Your task to perform on an android device: Clear the cart on walmart.com. Add dell xps to the cart on walmart.com Image 0: 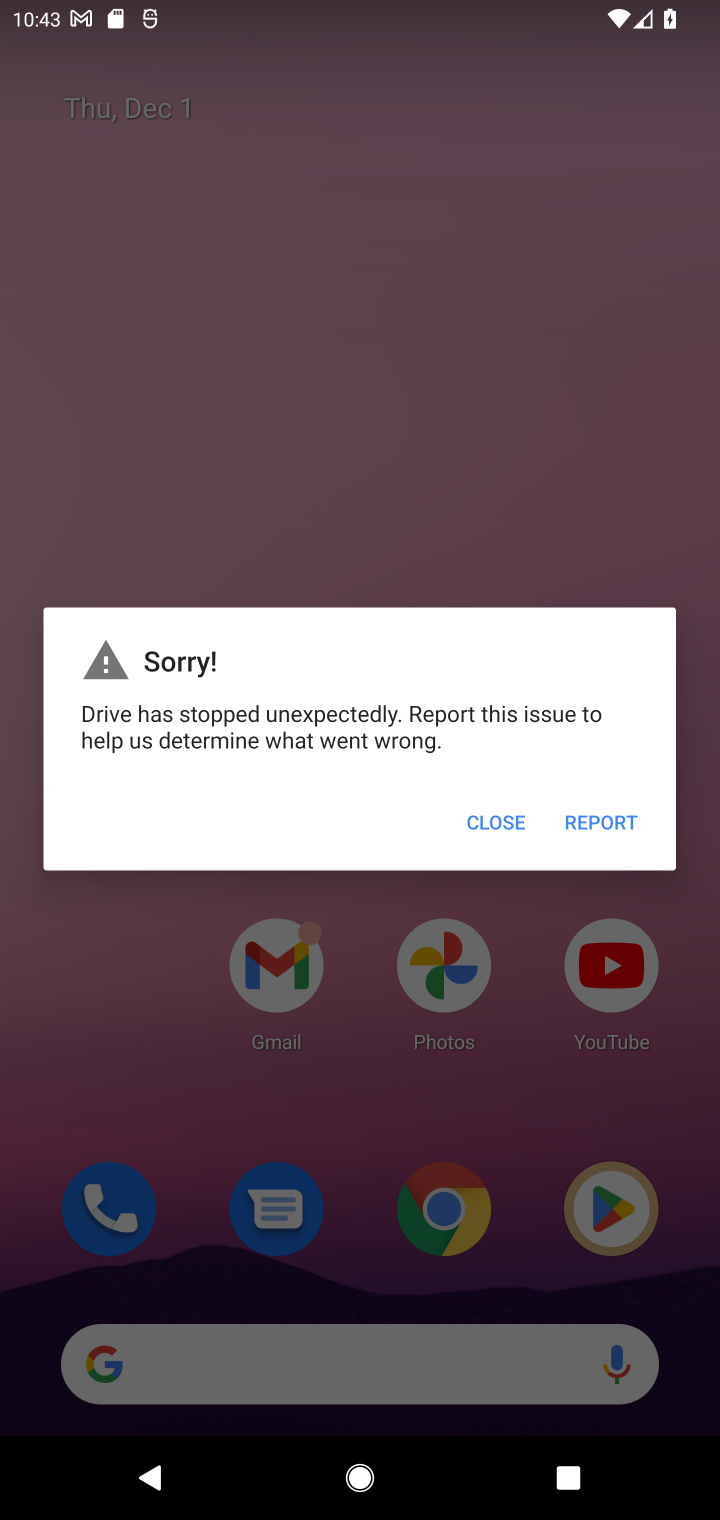
Step 0: click (490, 816)
Your task to perform on an android device: Clear the cart on walmart.com. Add dell xps to the cart on walmart.com Image 1: 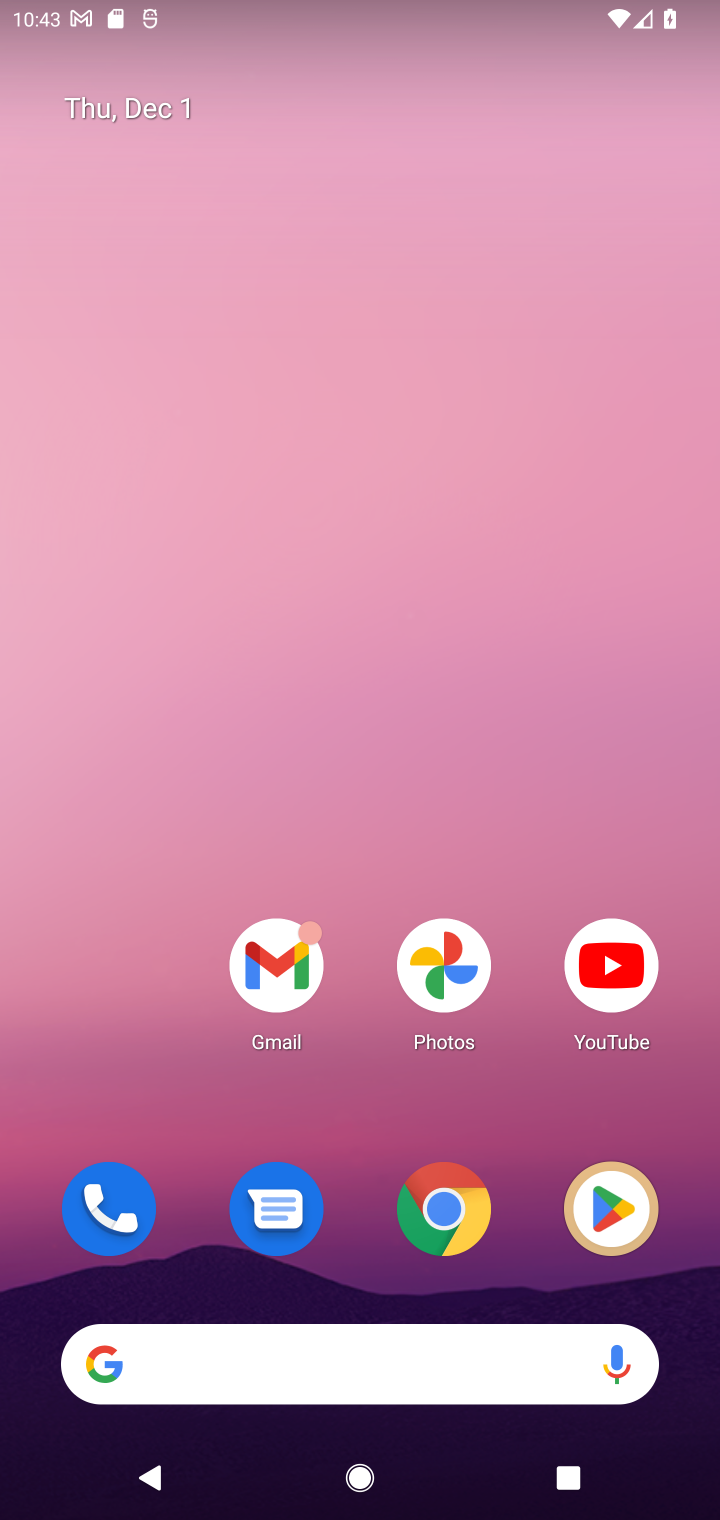
Step 1: click (447, 1205)
Your task to perform on an android device: Clear the cart on walmart.com. Add dell xps to the cart on walmart.com Image 2: 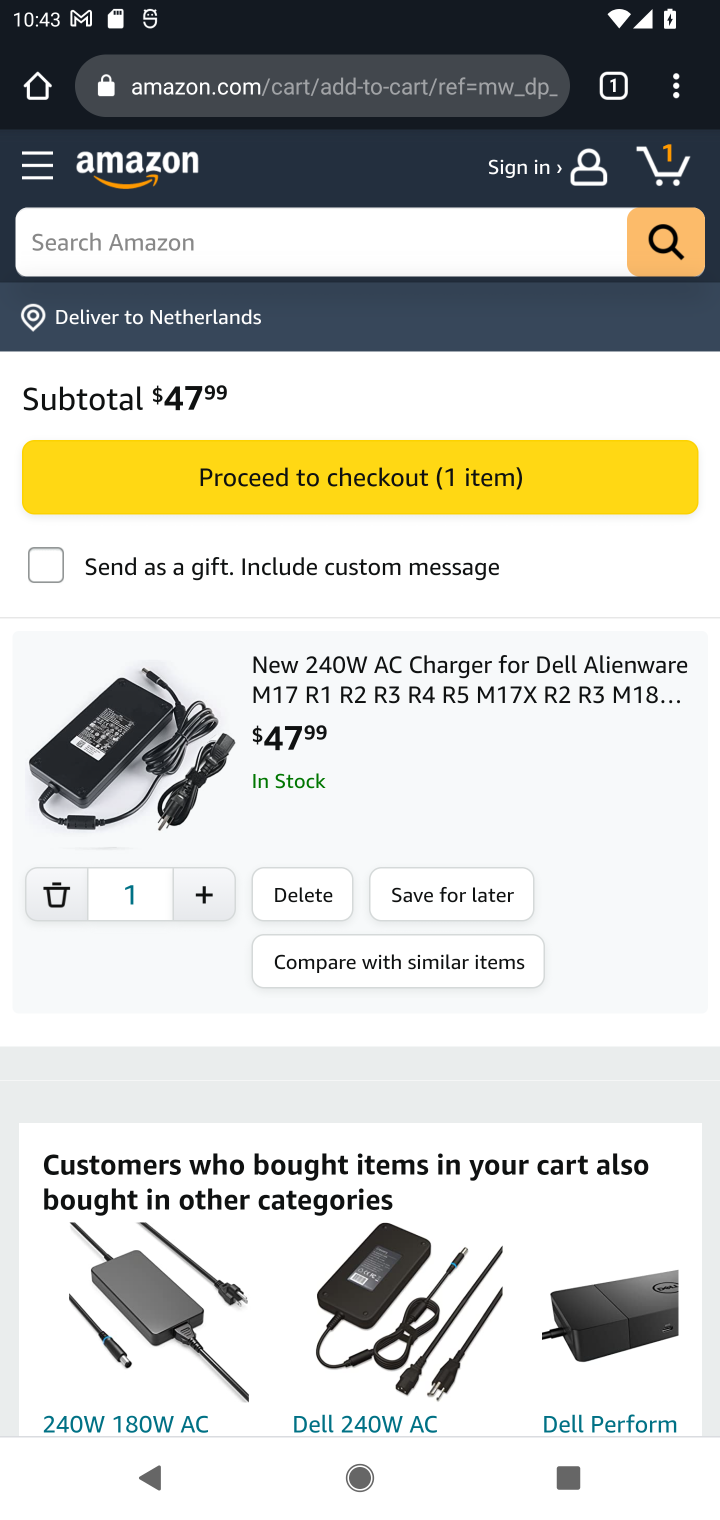
Step 2: press home button
Your task to perform on an android device: Clear the cart on walmart.com. Add dell xps to the cart on walmart.com Image 3: 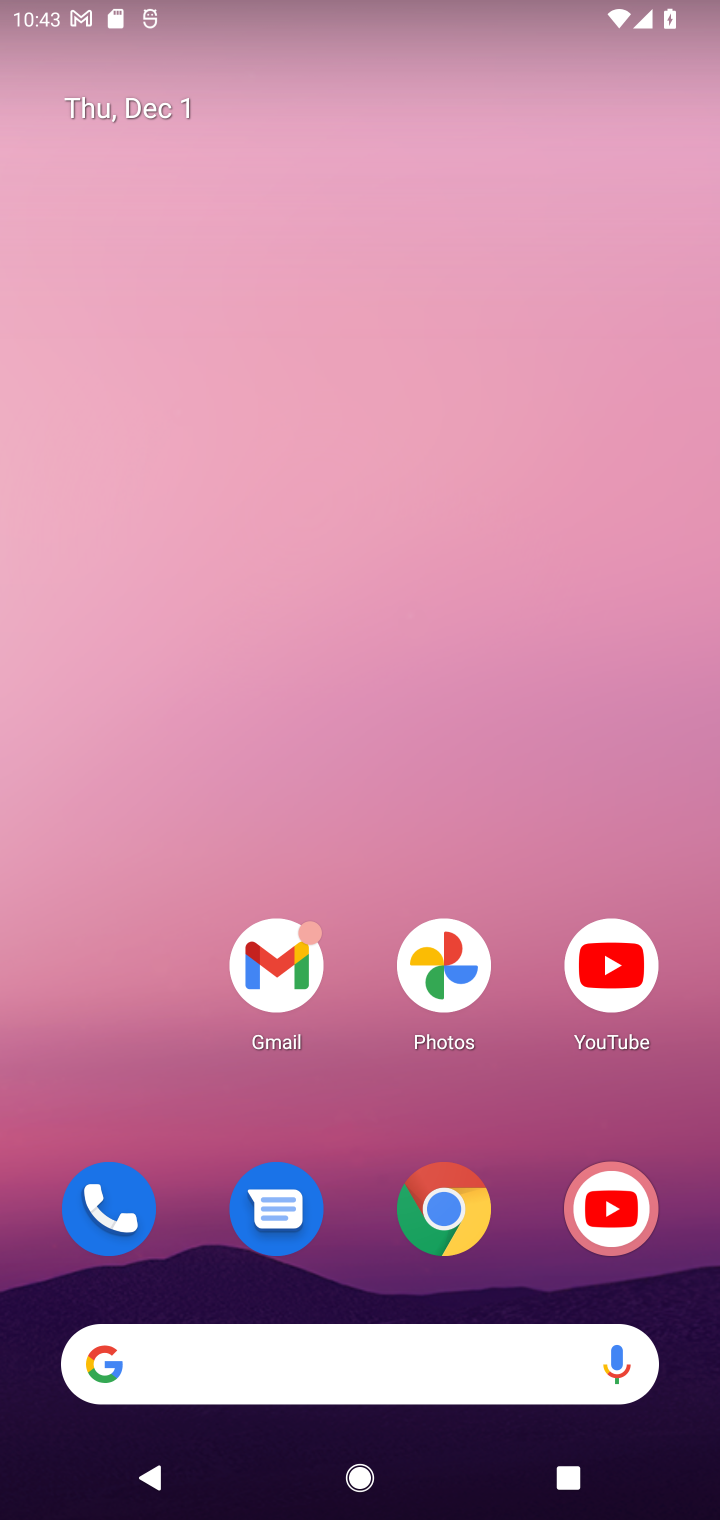
Step 3: click (442, 1214)
Your task to perform on an android device: Clear the cart on walmart.com. Add dell xps to the cart on walmart.com Image 4: 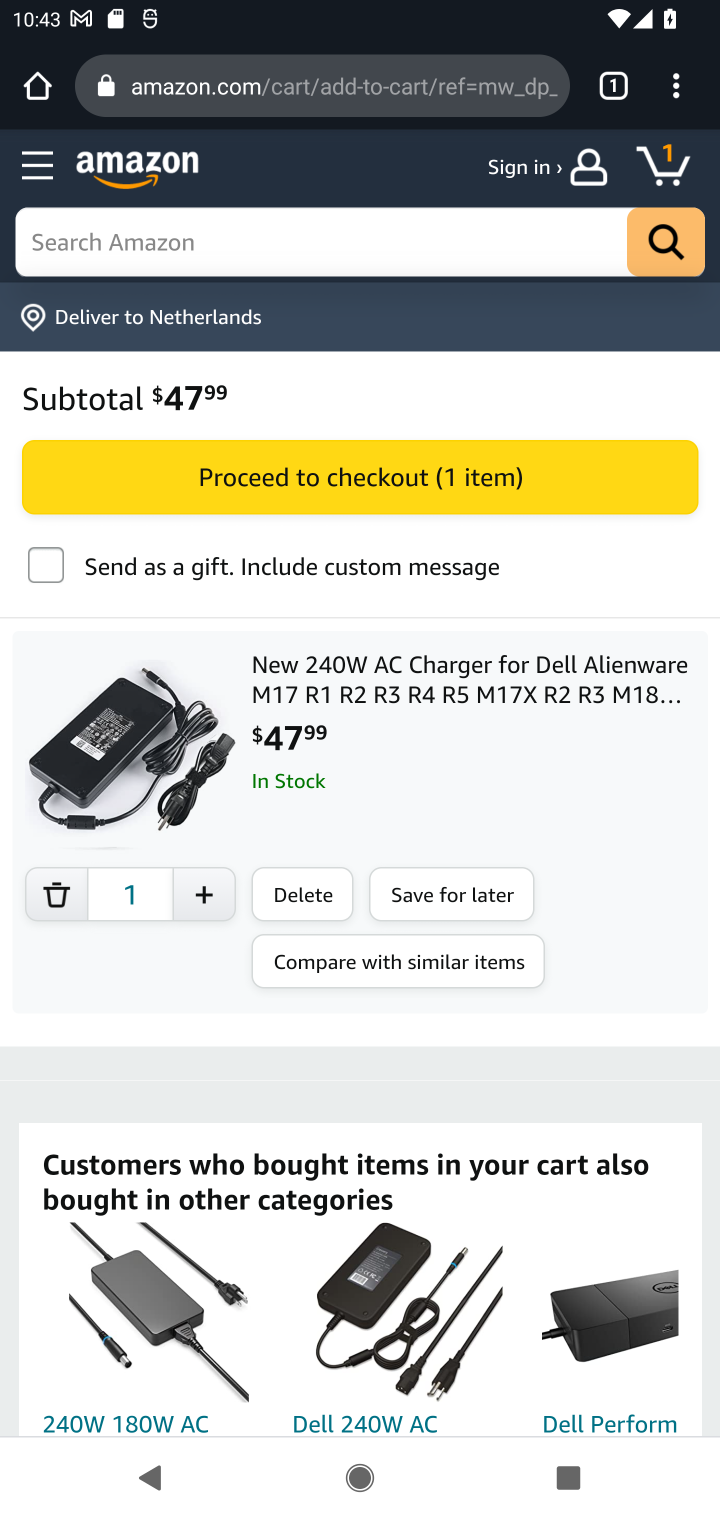
Step 4: click (324, 86)
Your task to perform on an android device: Clear the cart on walmart.com. Add dell xps to the cart on walmart.com Image 5: 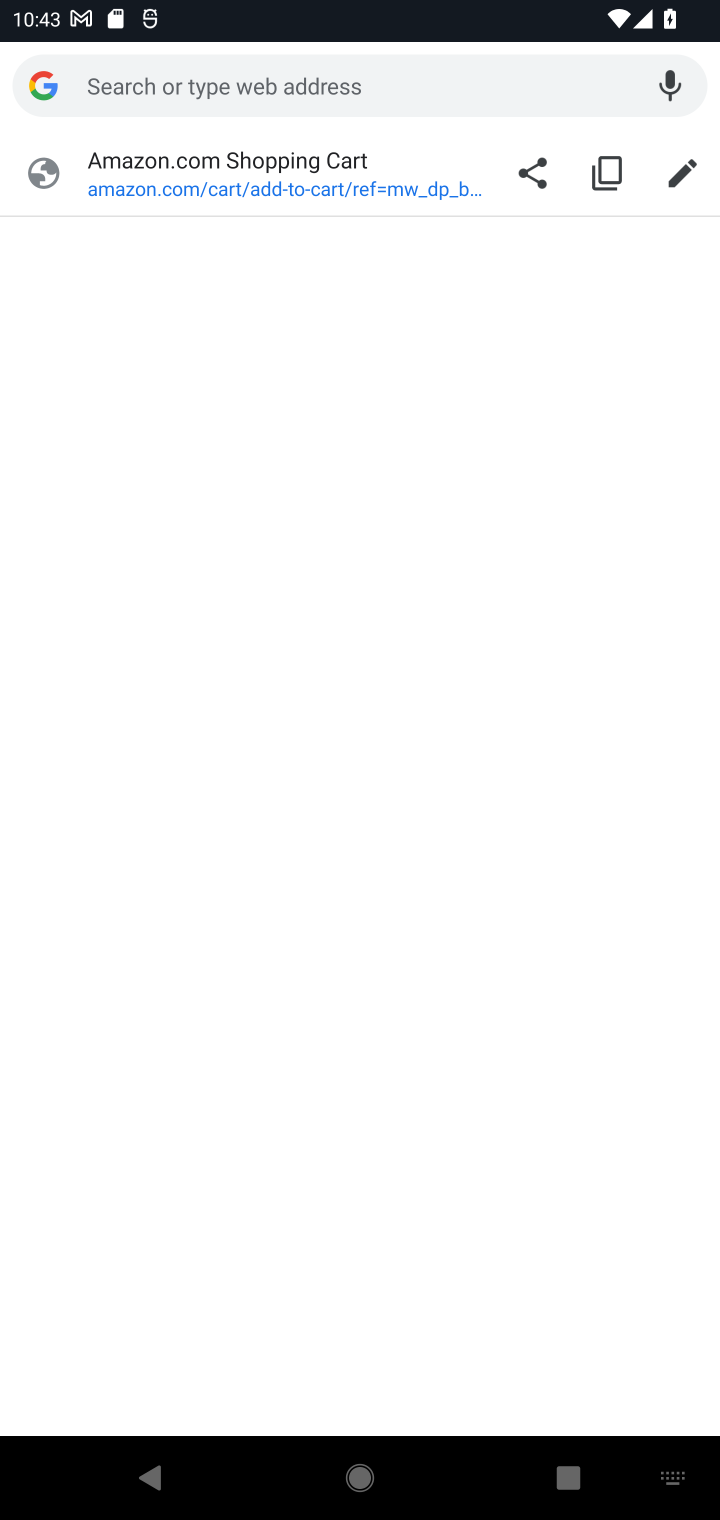
Step 5: type "walmart.com"
Your task to perform on an android device: Clear the cart on walmart.com. Add dell xps to the cart on walmart.com Image 6: 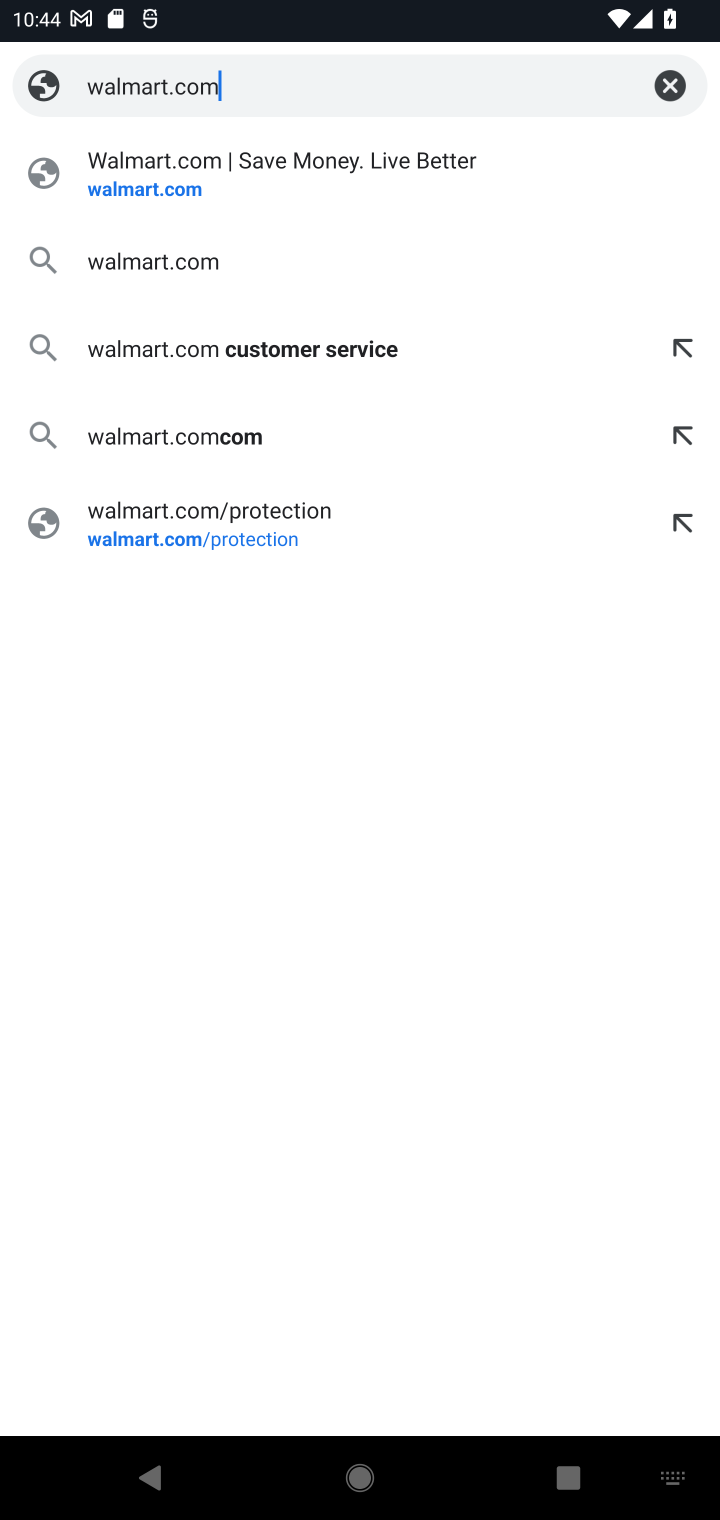
Step 6: click (208, 160)
Your task to perform on an android device: Clear the cart on walmart.com. Add dell xps to the cart on walmart.com Image 7: 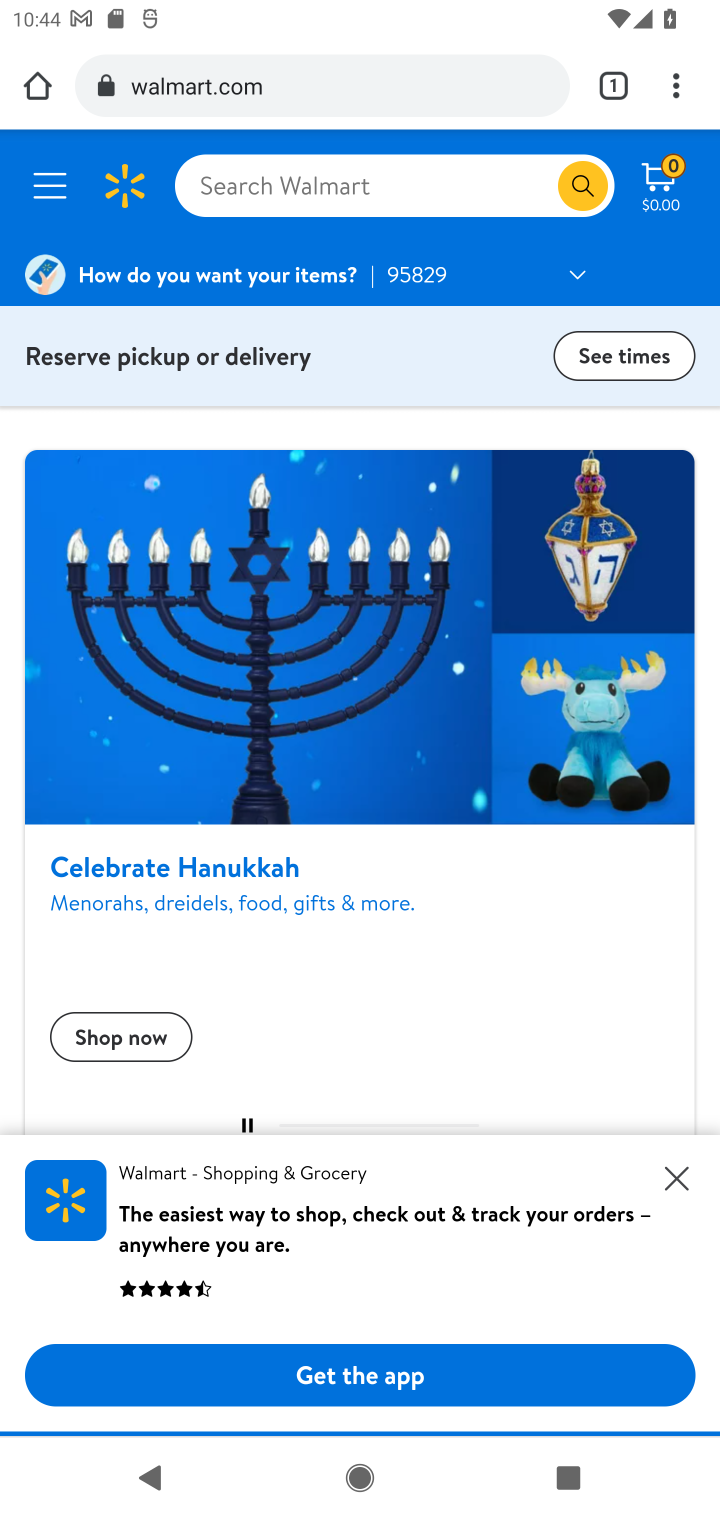
Step 7: click (666, 1177)
Your task to perform on an android device: Clear the cart on walmart.com. Add dell xps to the cart on walmart.com Image 8: 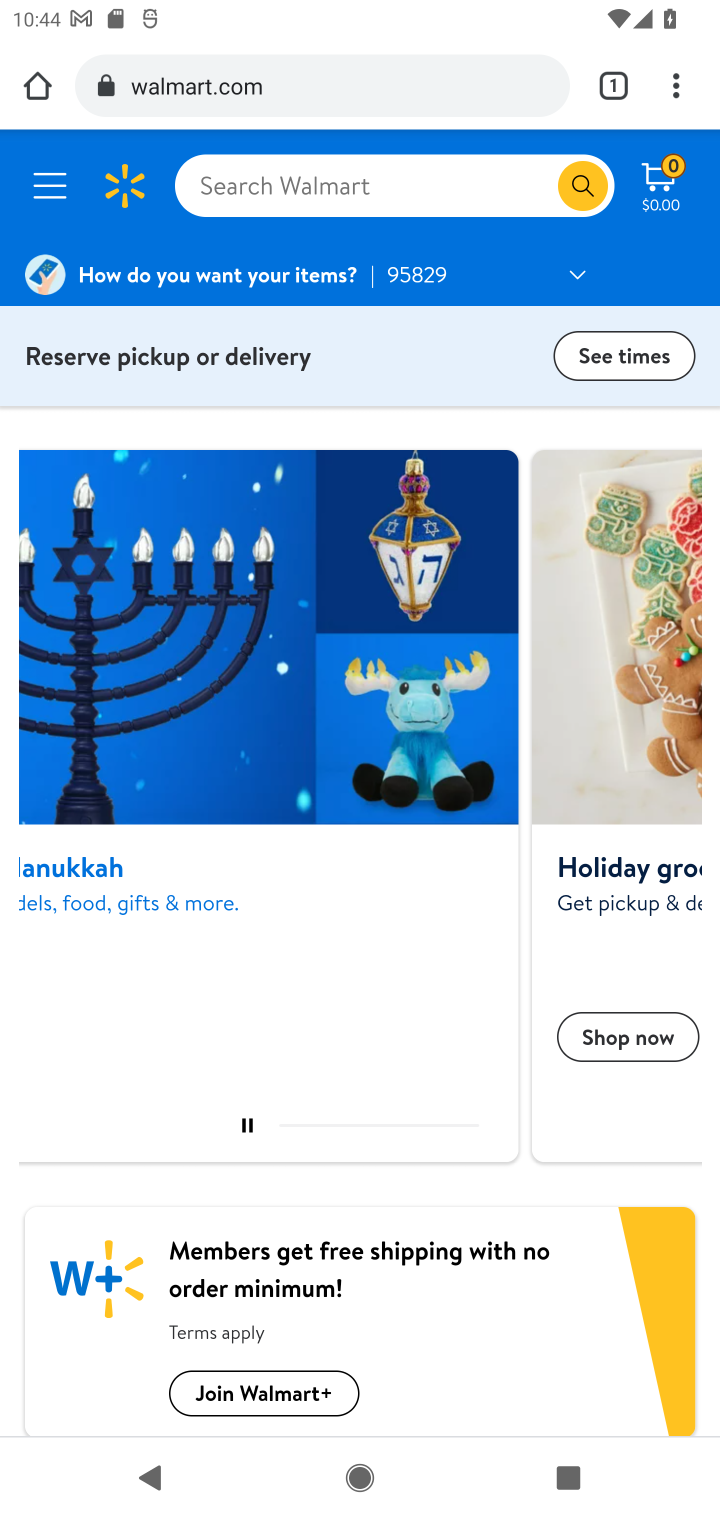
Step 8: click (415, 191)
Your task to perform on an android device: Clear the cart on walmart.com. Add dell xps to the cart on walmart.com Image 9: 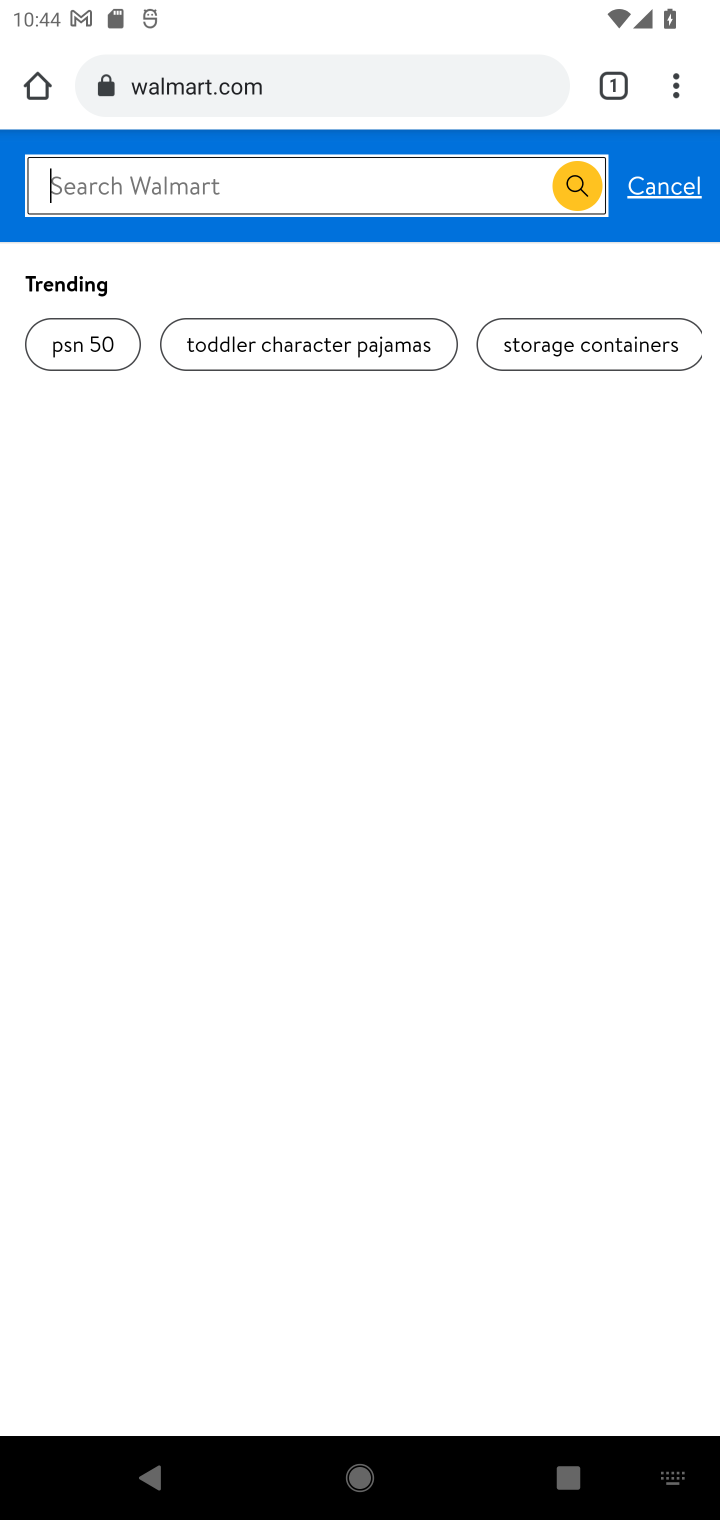
Step 9: type "dell xps"
Your task to perform on an android device: Clear the cart on walmart.com. Add dell xps to the cart on walmart.com Image 10: 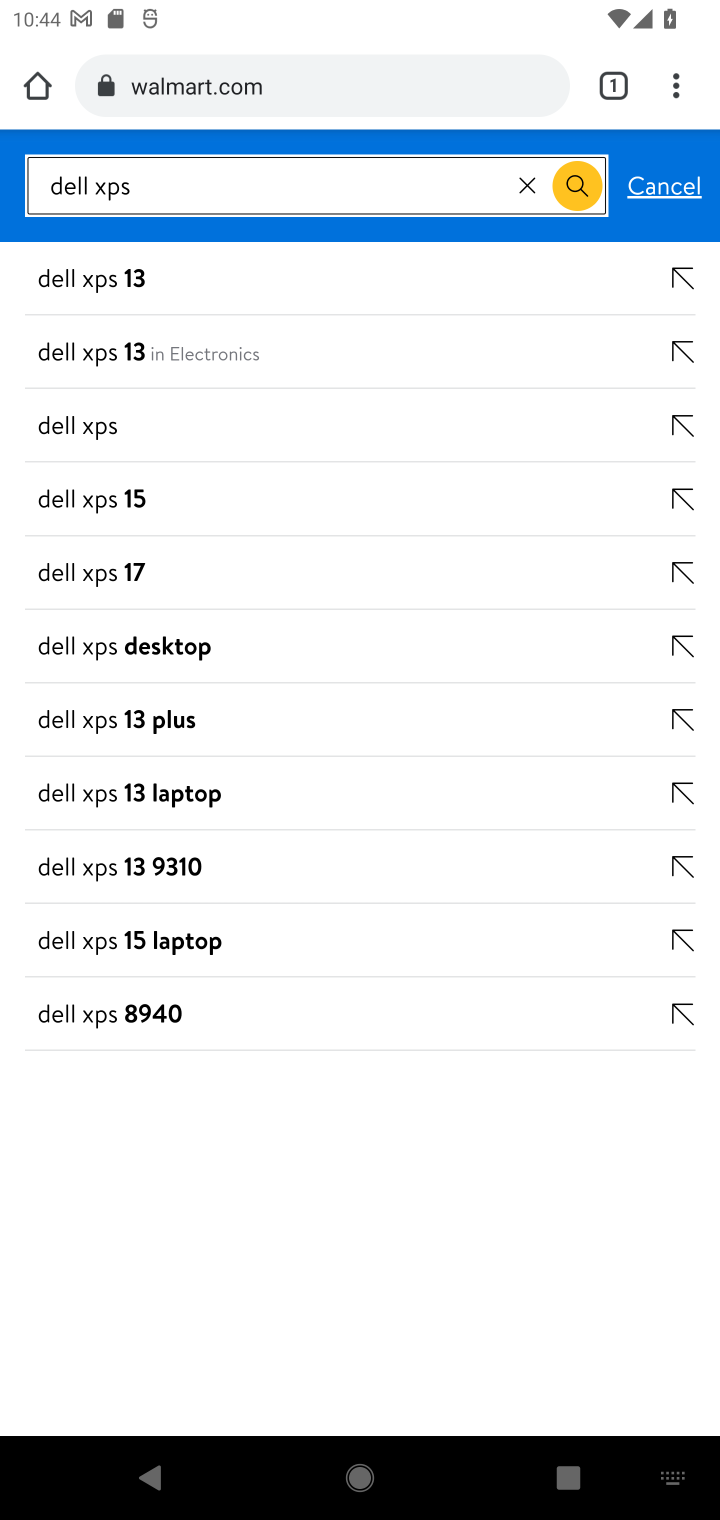
Step 10: click (86, 277)
Your task to perform on an android device: Clear the cart on walmart.com. Add dell xps to the cart on walmart.com Image 11: 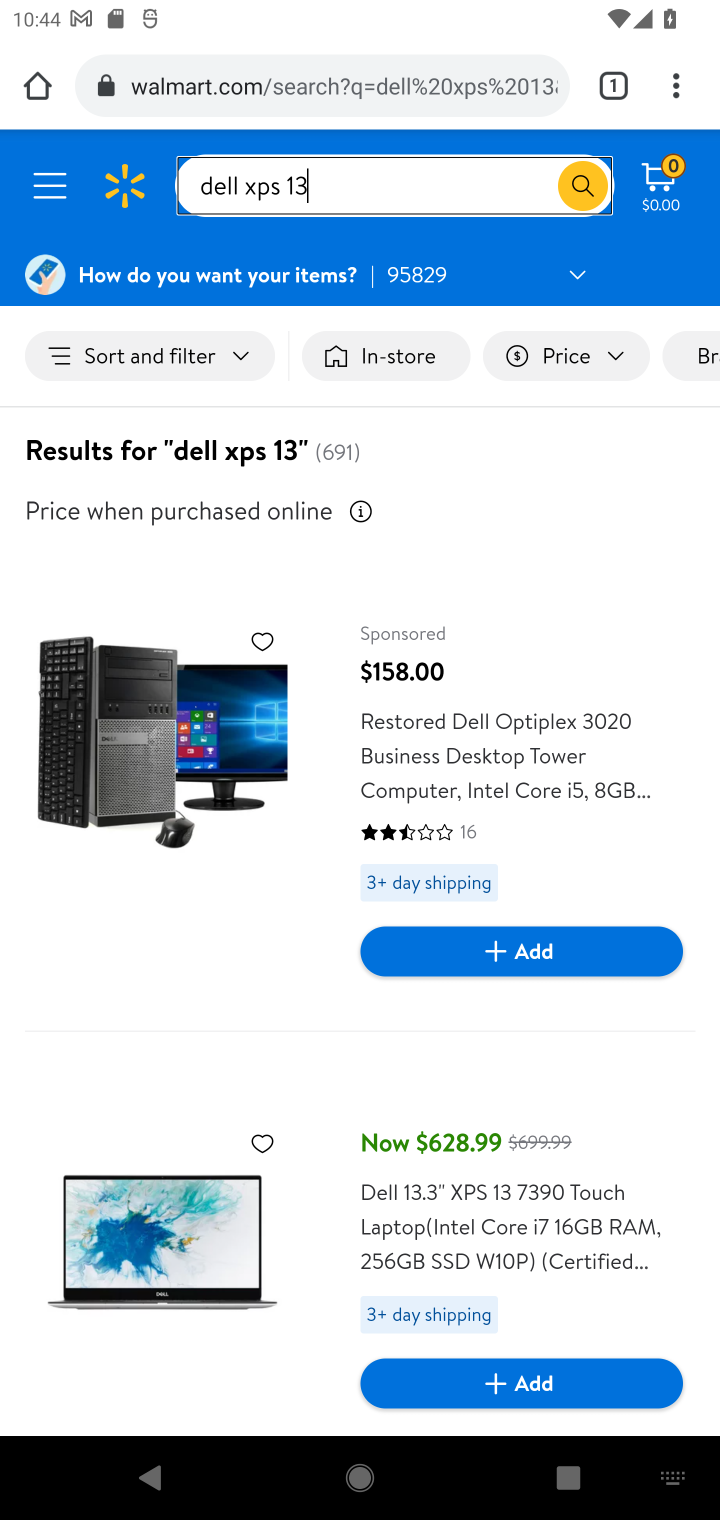
Step 11: click (220, 759)
Your task to perform on an android device: Clear the cart on walmart.com. Add dell xps to the cart on walmart.com Image 12: 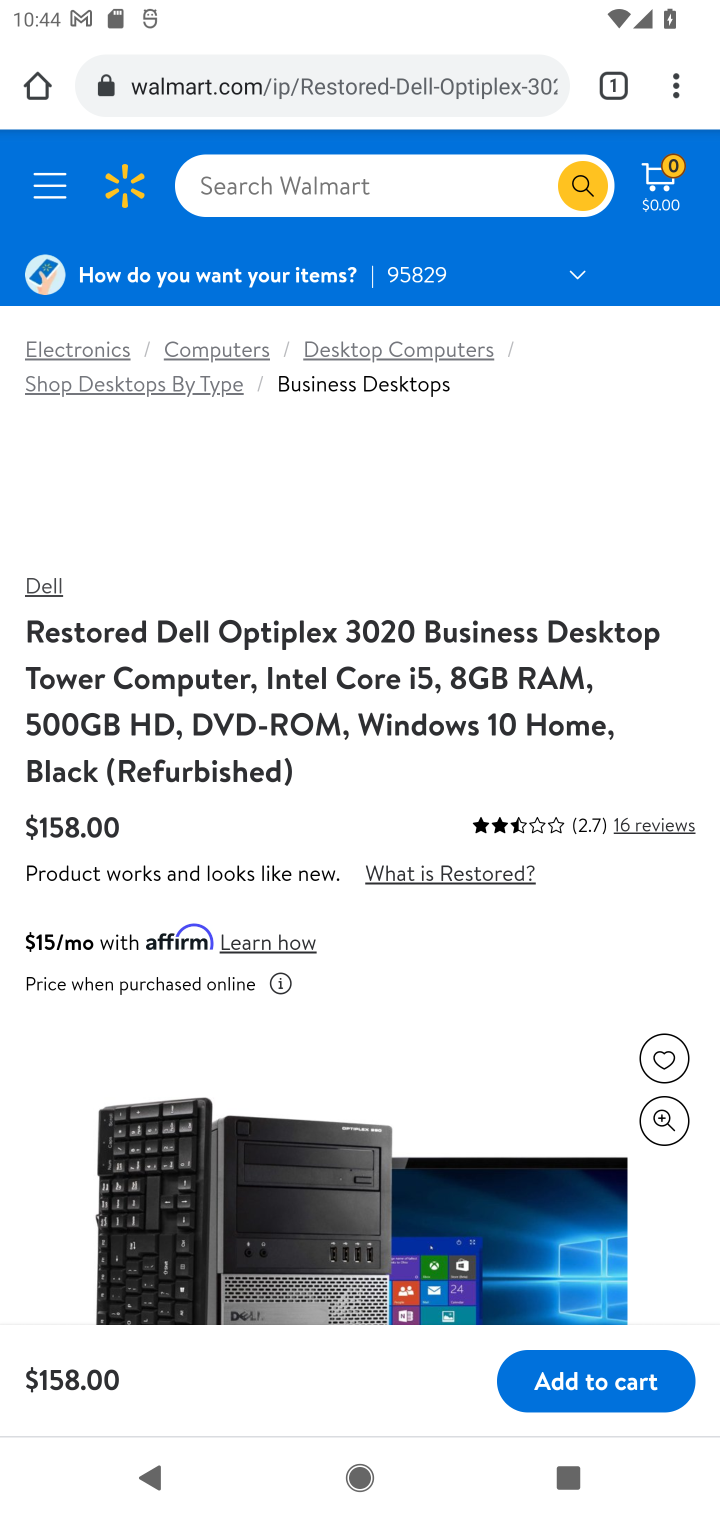
Step 12: click (598, 1393)
Your task to perform on an android device: Clear the cart on walmart.com. Add dell xps to the cart on walmart.com Image 13: 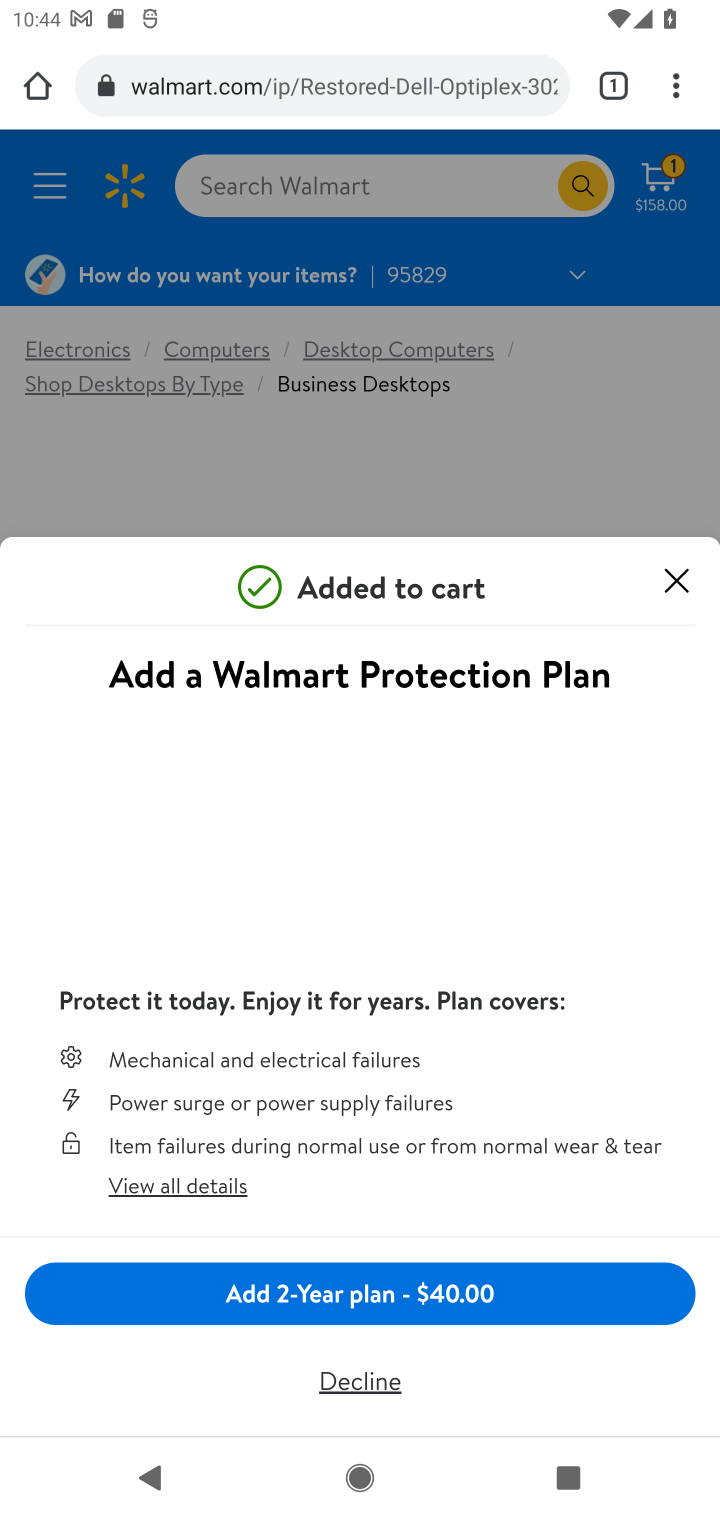
Step 13: click (672, 573)
Your task to perform on an android device: Clear the cart on walmart.com. Add dell xps to the cart on walmart.com Image 14: 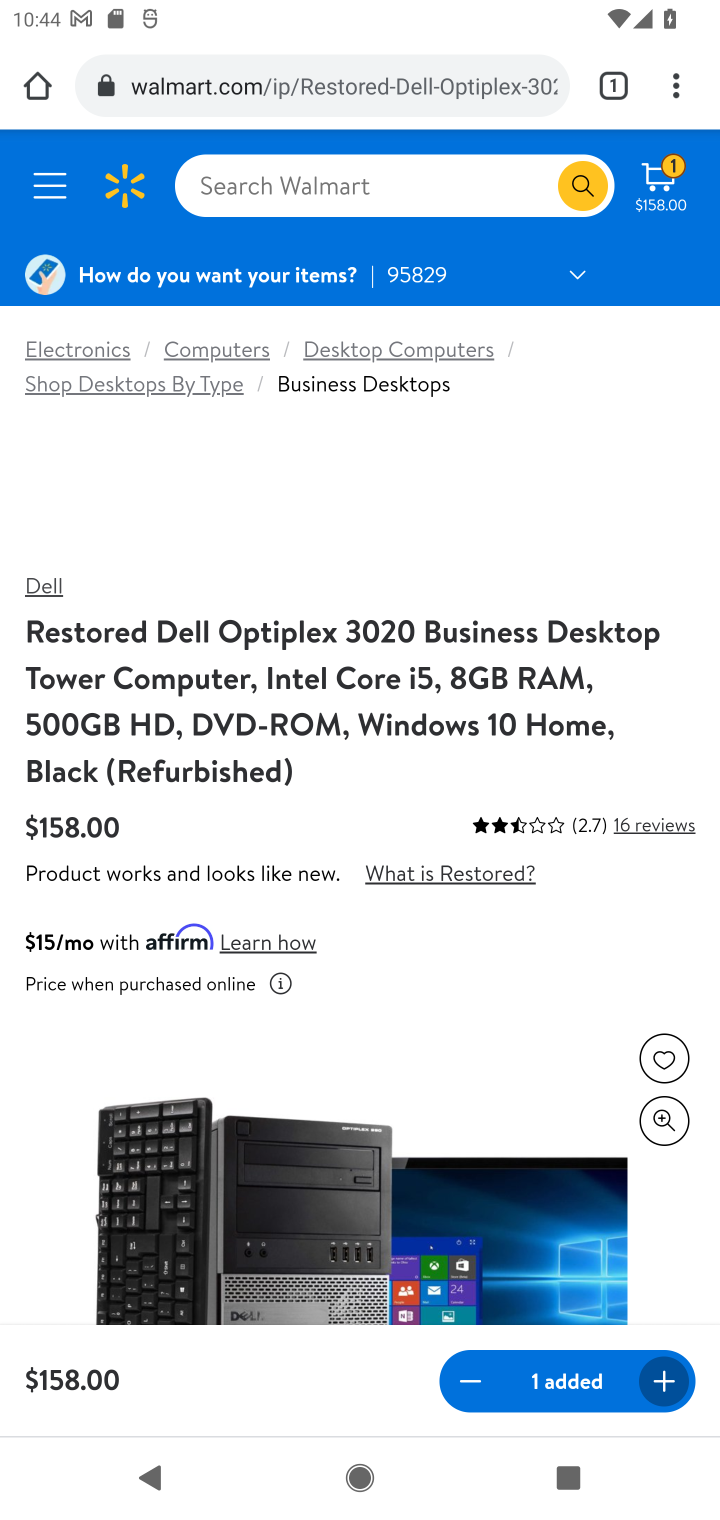
Step 14: task complete